Your task to perform on an android device: Open Maps and search for coffee Image 0: 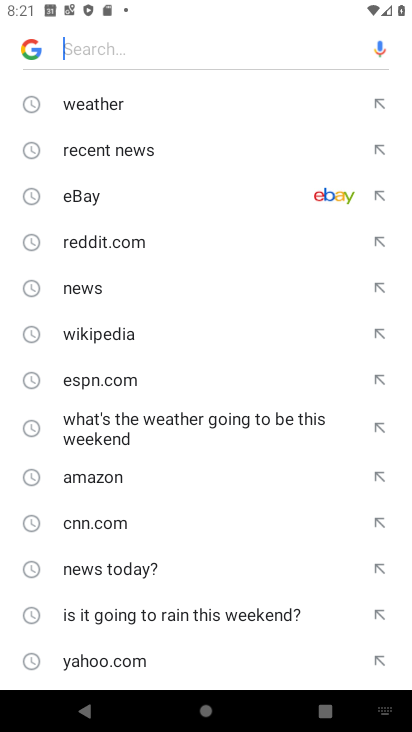
Step 0: press home button
Your task to perform on an android device: Open Maps and search for coffee Image 1: 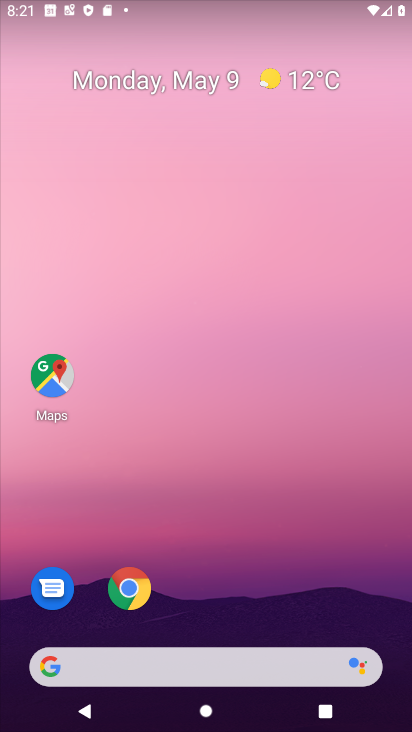
Step 1: drag from (148, 668) to (298, 65)
Your task to perform on an android device: Open Maps and search for coffee Image 2: 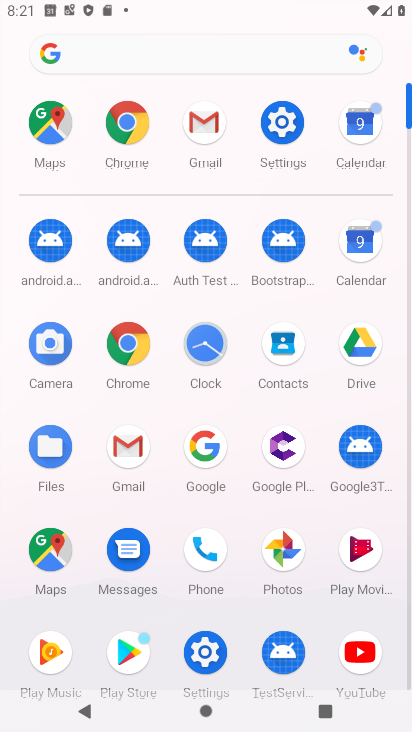
Step 2: click (42, 133)
Your task to perform on an android device: Open Maps and search for coffee Image 3: 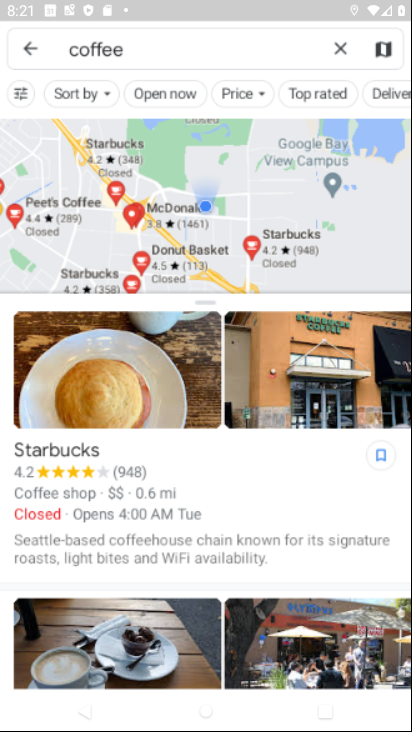
Step 3: task complete